Your task to perform on an android device: Turn on the flashlight Image 0: 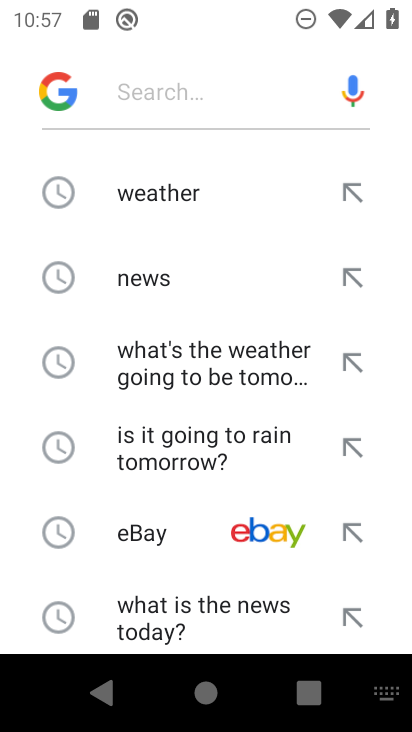
Step 0: press home button
Your task to perform on an android device: Turn on the flashlight Image 1: 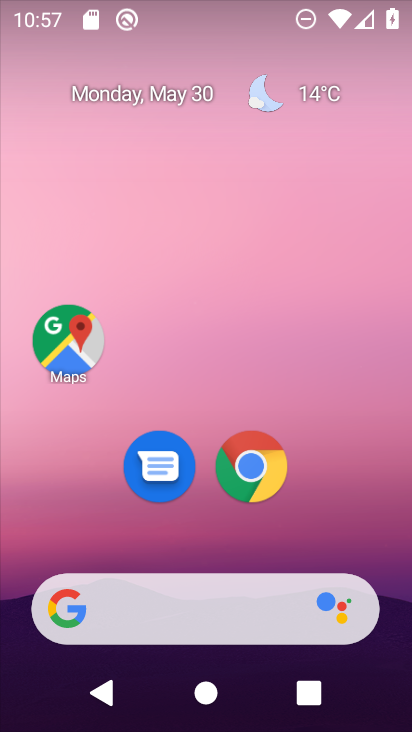
Step 1: drag from (296, 526) to (310, 49)
Your task to perform on an android device: Turn on the flashlight Image 2: 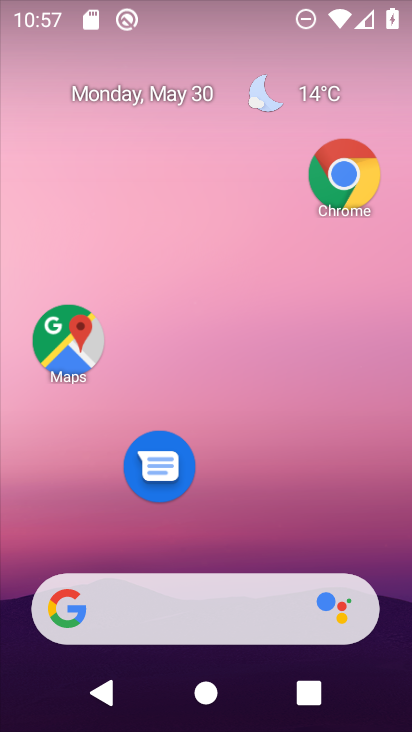
Step 2: drag from (296, 525) to (186, 216)
Your task to perform on an android device: Turn on the flashlight Image 3: 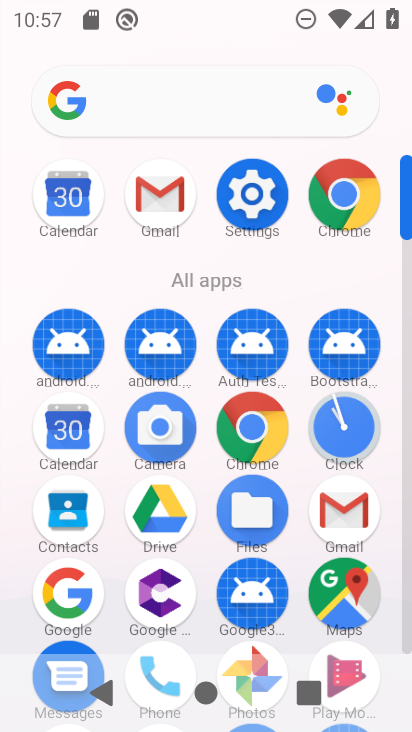
Step 3: click (233, 204)
Your task to perform on an android device: Turn on the flashlight Image 4: 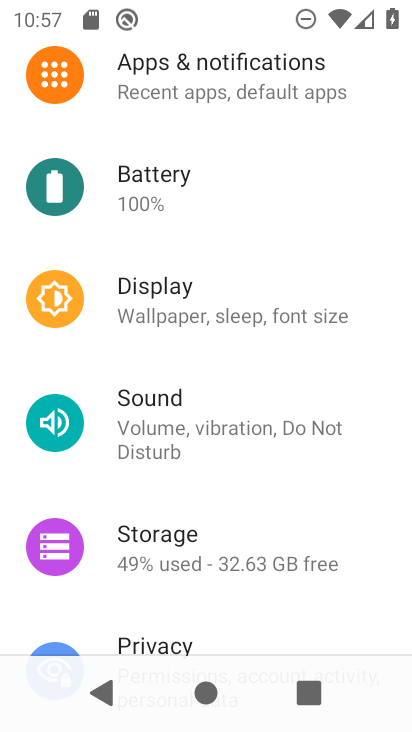
Step 4: task complete